Your task to perform on an android device: turn notification dots on Image 0: 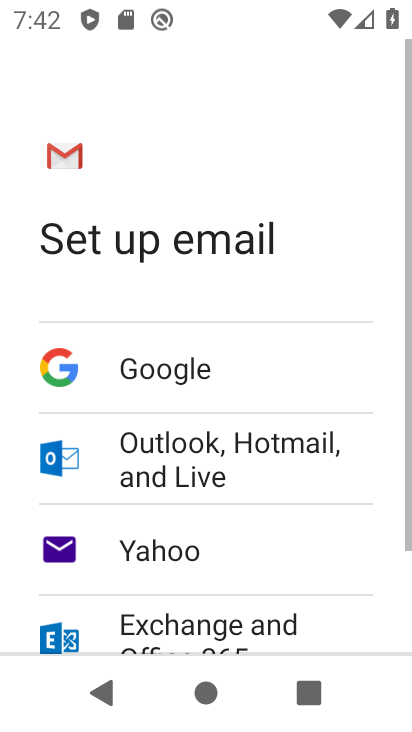
Step 0: press home button
Your task to perform on an android device: turn notification dots on Image 1: 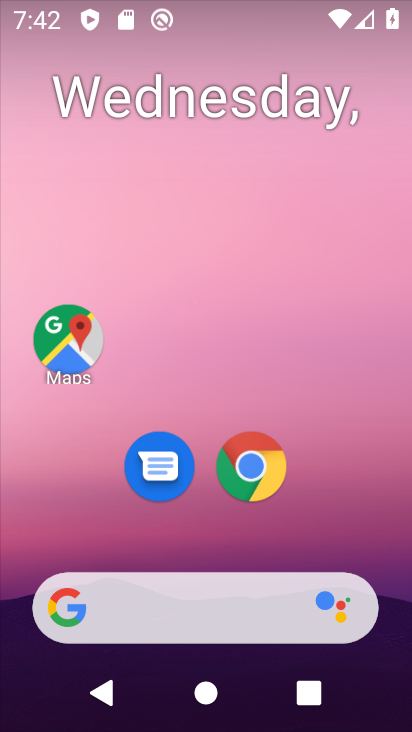
Step 1: drag from (189, 539) to (332, 57)
Your task to perform on an android device: turn notification dots on Image 2: 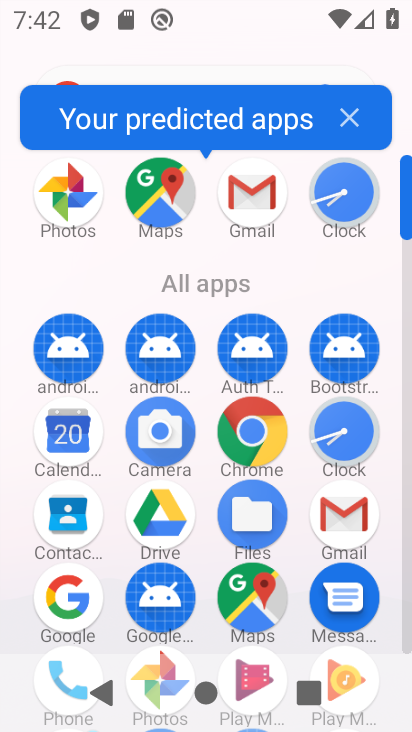
Step 2: drag from (209, 593) to (208, 201)
Your task to perform on an android device: turn notification dots on Image 3: 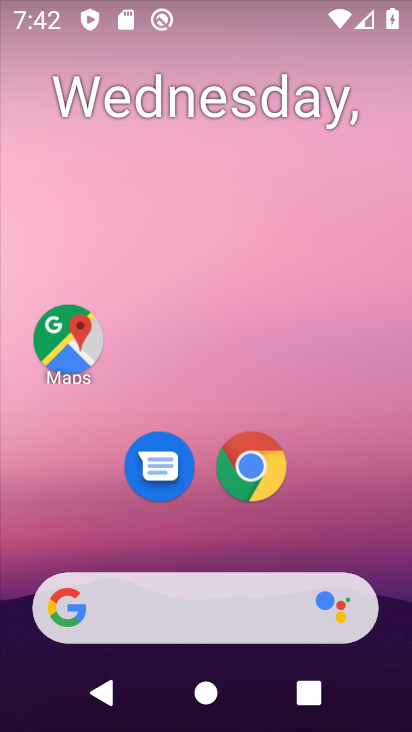
Step 3: drag from (203, 560) to (156, 4)
Your task to perform on an android device: turn notification dots on Image 4: 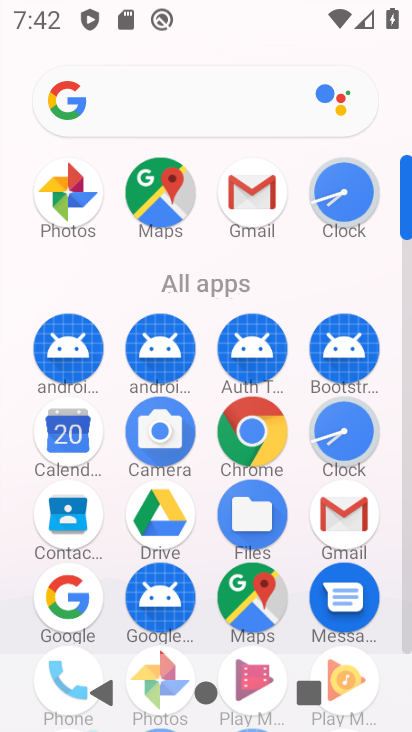
Step 4: drag from (208, 559) to (193, 355)
Your task to perform on an android device: turn notification dots on Image 5: 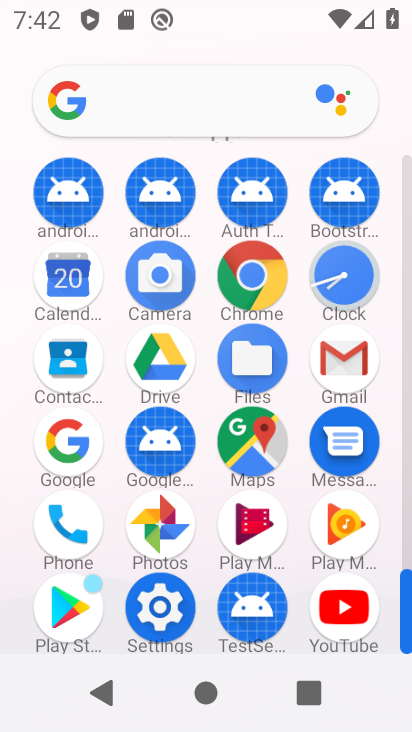
Step 5: click (160, 615)
Your task to perform on an android device: turn notification dots on Image 6: 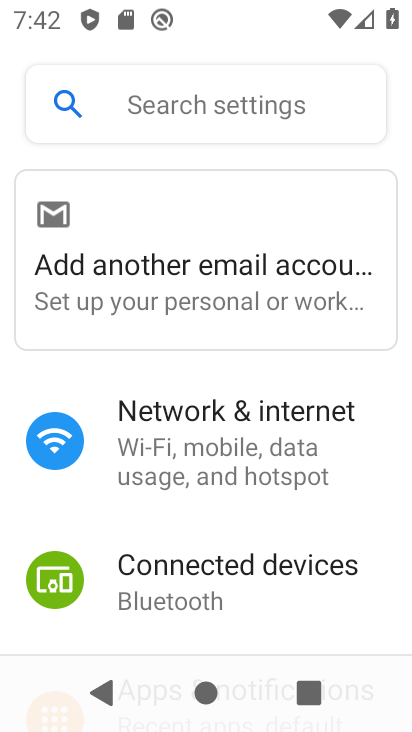
Step 6: drag from (164, 575) to (142, 162)
Your task to perform on an android device: turn notification dots on Image 7: 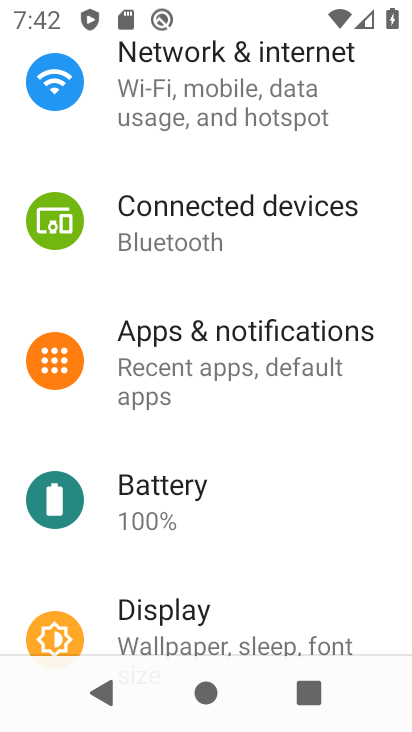
Step 7: click (171, 310)
Your task to perform on an android device: turn notification dots on Image 8: 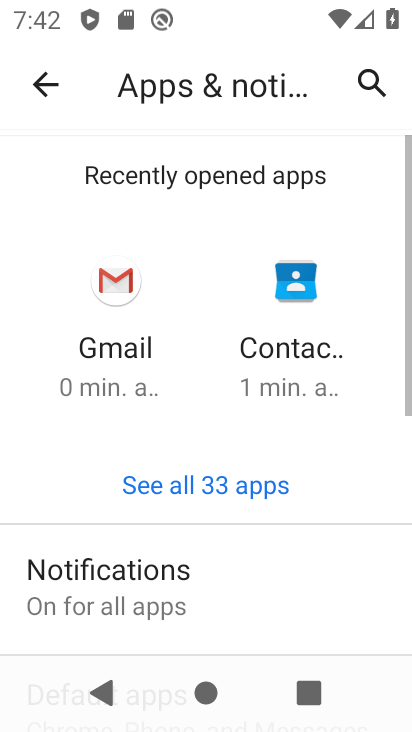
Step 8: click (159, 571)
Your task to perform on an android device: turn notification dots on Image 9: 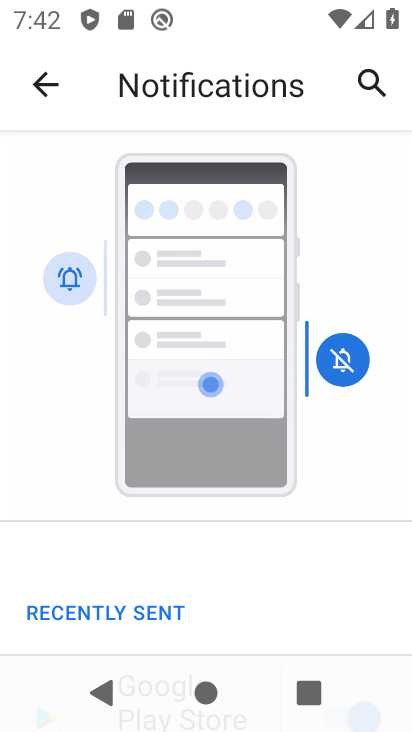
Step 9: drag from (271, 571) to (215, 112)
Your task to perform on an android device: turn notification dots on Image 10: 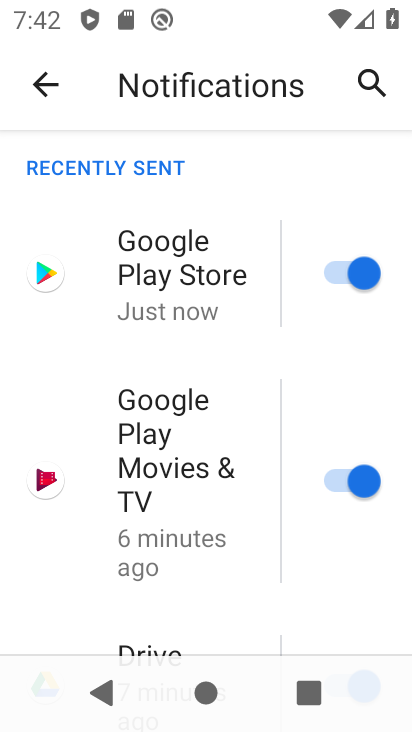
Step 10: drag from (229, 505) to (197, 48)
Your task to perform on an android device: turn notification dots on Image 11: 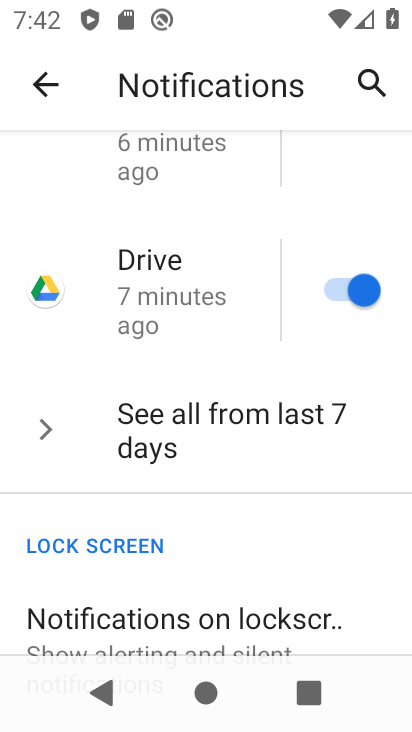
Step 11: drag from (153, 470) to (125, 59)
Your task to perform on an android device: turn notification dots on Image 12: 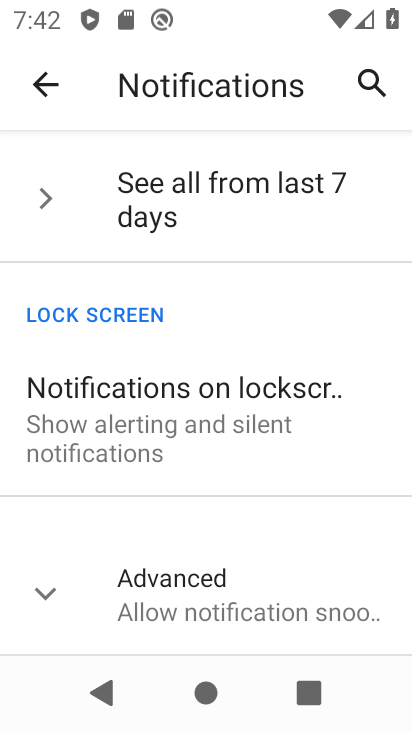
Step 12: click (175, 604)
Your task to perform on an android device: turn notification dots on Image 13: 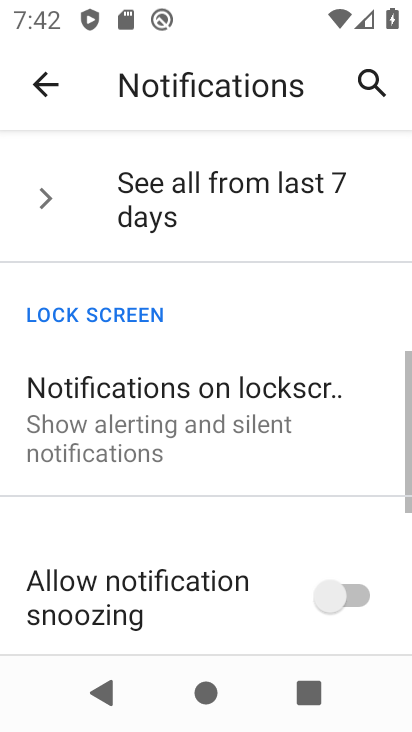
Step 13: task complete